Your task to perform on an android device: Open the Play Movies app and select the watchlist tab. Image 0: 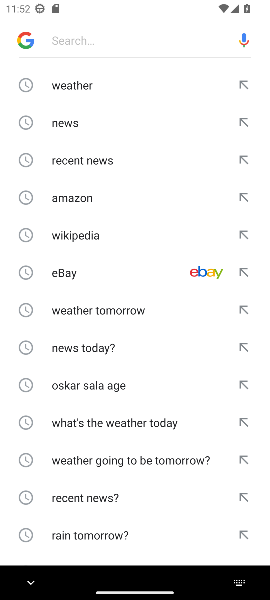
Step 0: press back button
Your task to perform on an android device: Open the Play Movies app and select the watchlist tab. Image 1: 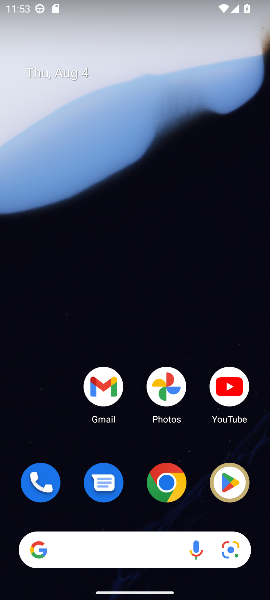
Step 1: task complete